Your task to perform on an android device: Search for seafood restaurants on Google Maps Image 0: 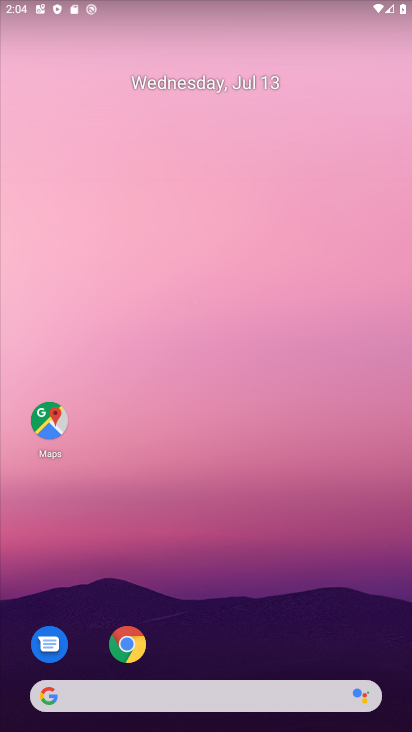
Step 0: drag from (307, 547) to (230, 25)
Your task to perform on an android device: Search for seafood restaurants on Google Maps Image 1: 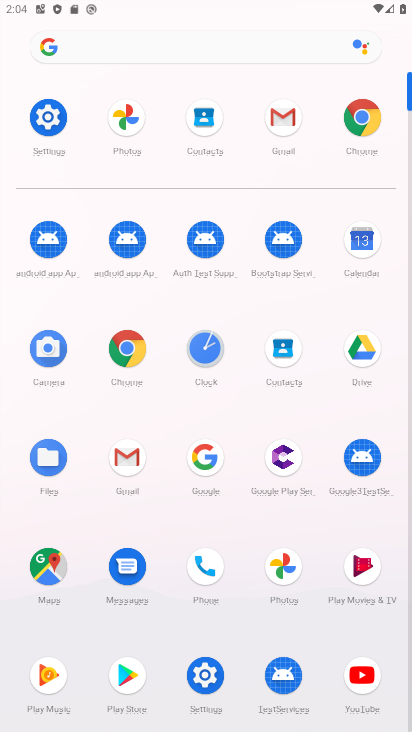
Step 1: click (48, 565)
Your task to perform on an android device: Search for seafood restaurants on Google Maps Image 2: 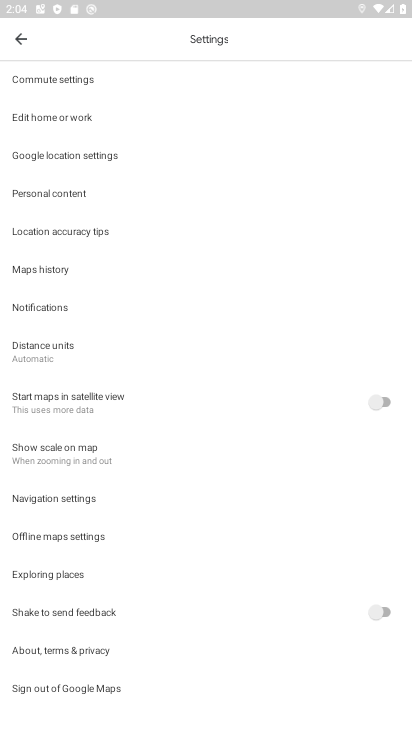
Step 2: click (18, 22)
Your task to perform on an android device: Search for seafood restaurants on Google Maps Image 3: 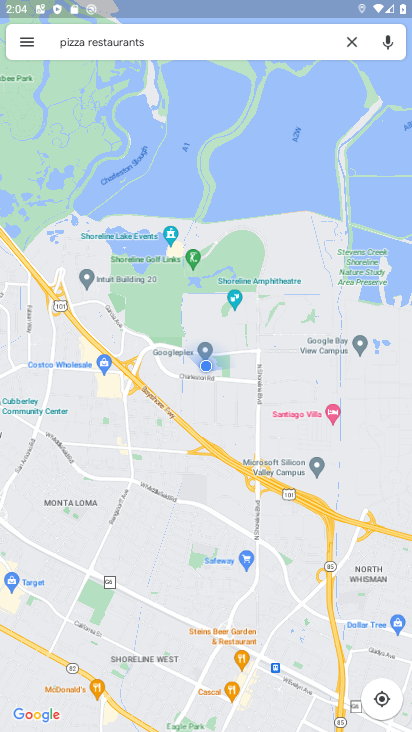
Step 3: click (254, 45)
Your task to perform on an android device: Search for seafood restaurants on Google Maps Image 4: 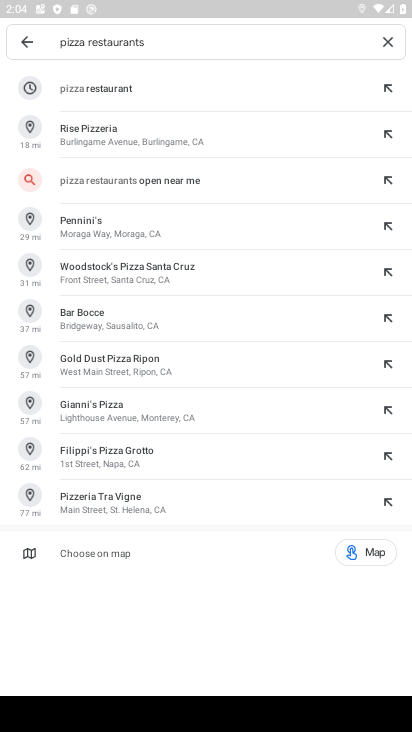
Step 4: click (392, 36)
Your task to perform on an android device: Search for seafood restaurants on Google Maps Image 5: 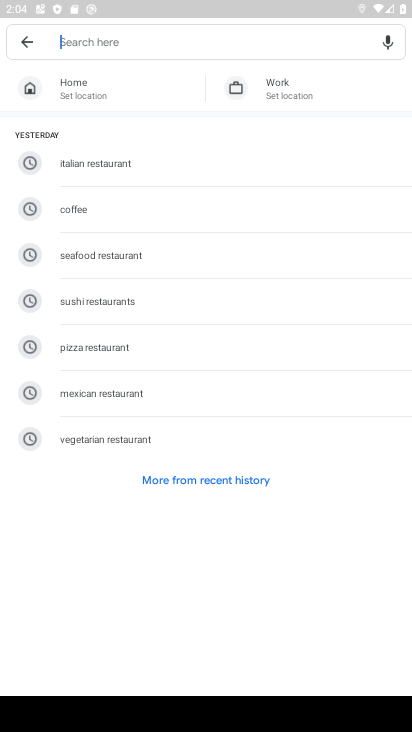
Step 5: type "seafood restaurants"
Your task to perform on an android device: Search for seafood restaurants on Google Maps Image 6: 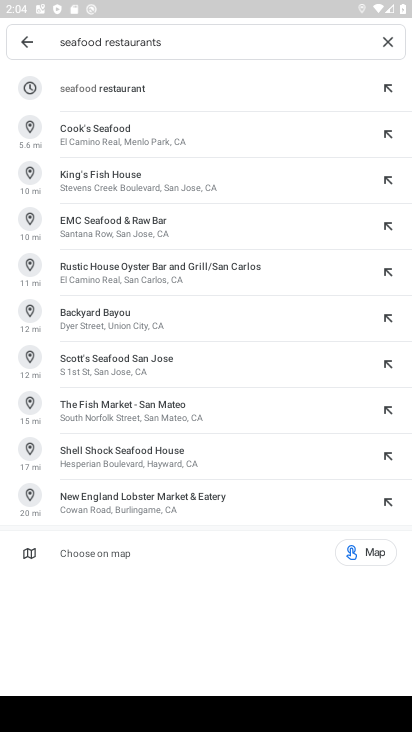
Step 6: press enter
Your task to perform on an android device: Search for seafood restaurants on Google Maps Image 7: 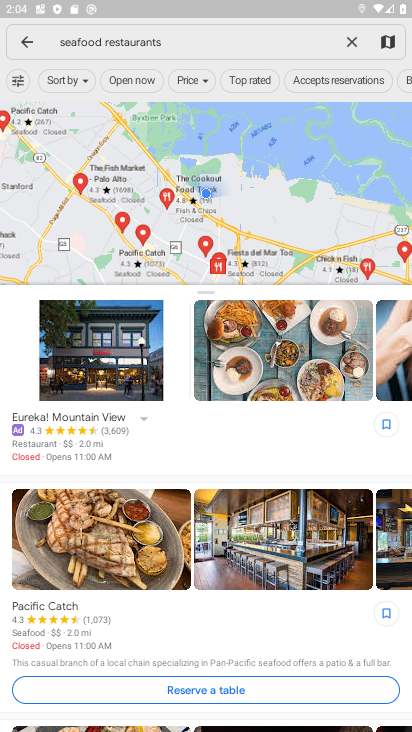
Step 7: task complete